Your task to perform on an android device: Go to Google maps Image 0: 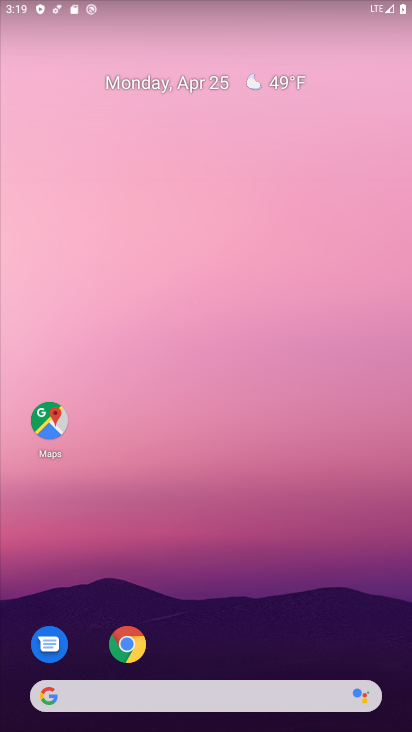
Step 0: click (38, 417)
Your task to perform on an android device: Go to Google maps Image 1: 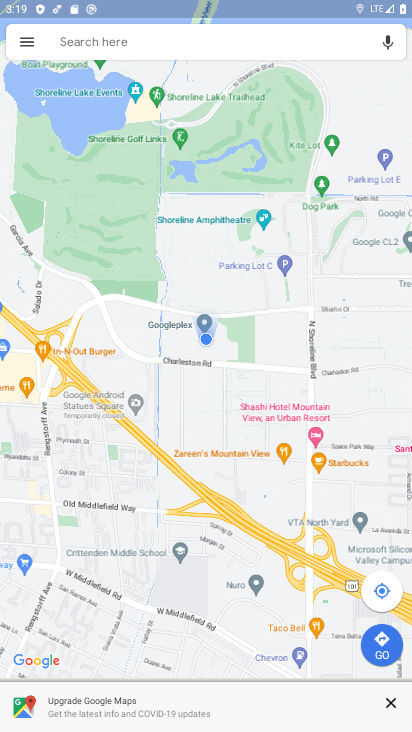
Step 1: task complete